Your task to perform on an android device: turn on data saver in the chrome app Image 0: 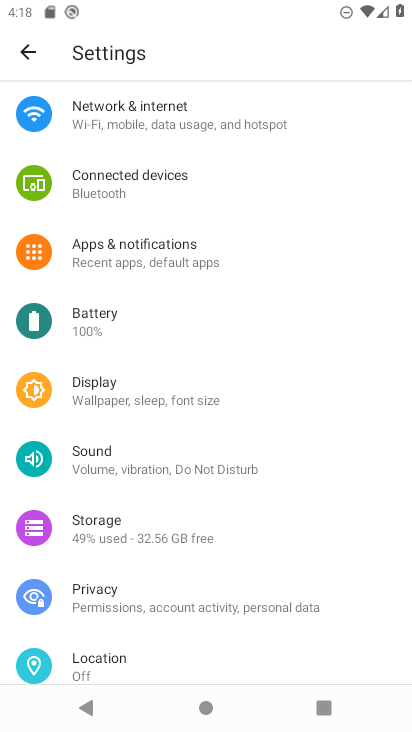
Step 0: press home button
Your task to perform on an android device: turn on data saver in the chrome app Image 1: 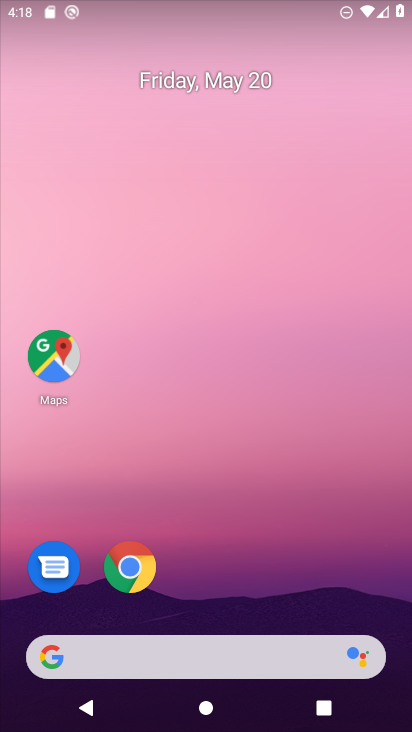
Step 1: click (133, 563)
Your task to perform on an android device: turn on data saver in the chrome app Image 2: 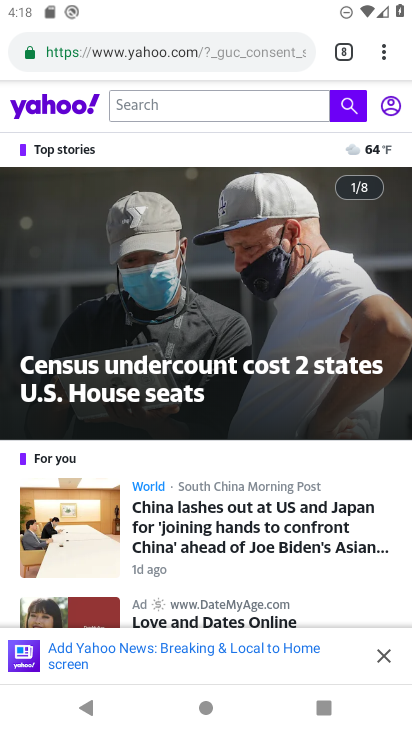
Step 2: click (382, 54)
Your task to perform on an android device: turn on data saver in the chrome app Image 3: 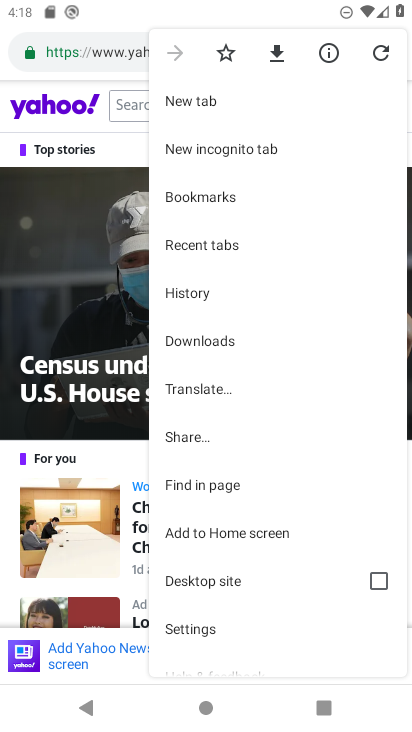
Step 3: click (189, 627)
Your task to perform on an android device: turn on data saver in the chrome app Image 4: 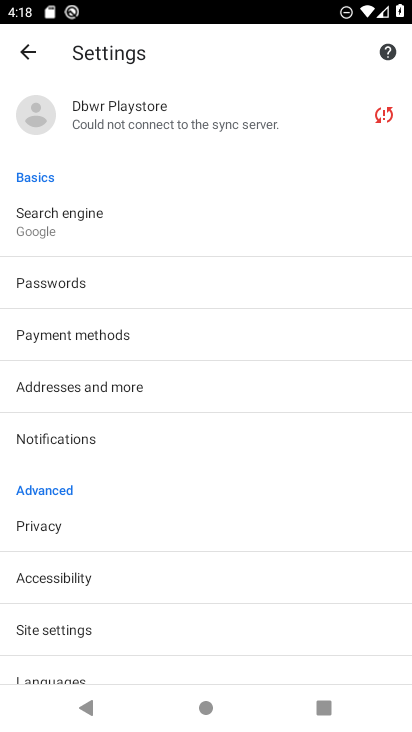
Step 4: drag from (111, 671) to (114, 438)
Your task to perform on an android device: turn on data saver in the chrome app Image 5: 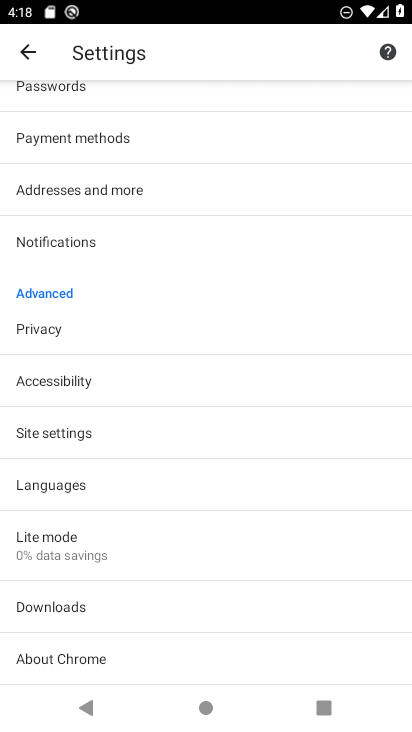
Step 5: click (46, 545)
Your task to perform on an android device: turn on data saver in the chrome app Image 6: 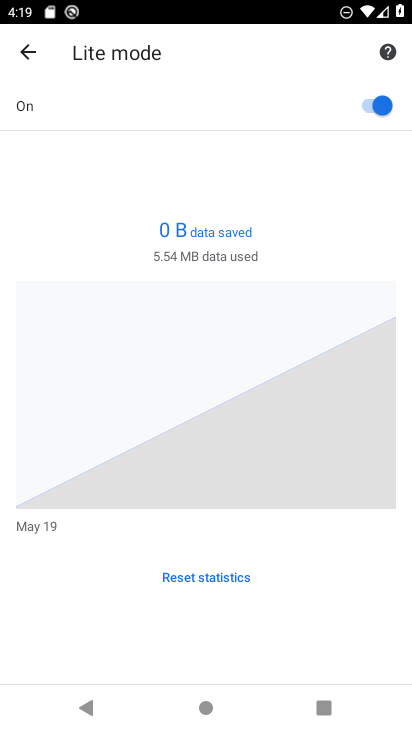
Step 6: task complete